Your task to perform on an android device: Open Reddit.com Image 0: 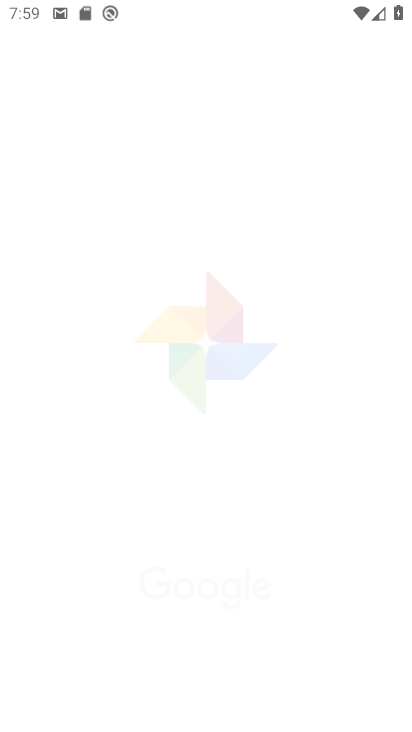
Step 0: drag from (244, 631) to (291, 269)
Your task to perform on an android device: Open Reddit.com Image 1: 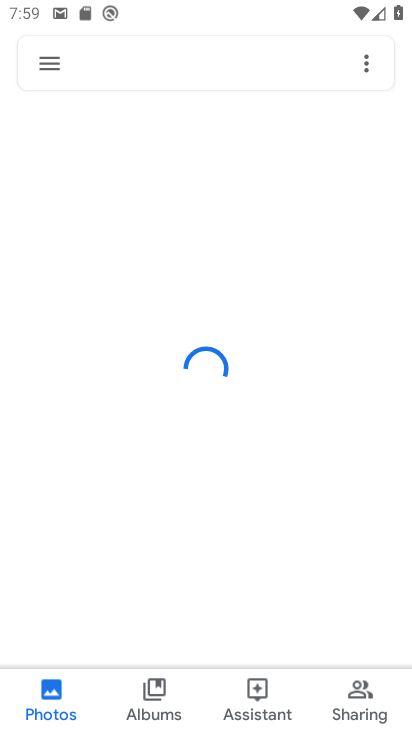
Step 1: press home button
Your task to perform on an android device: Open Reddit.com Image 2: 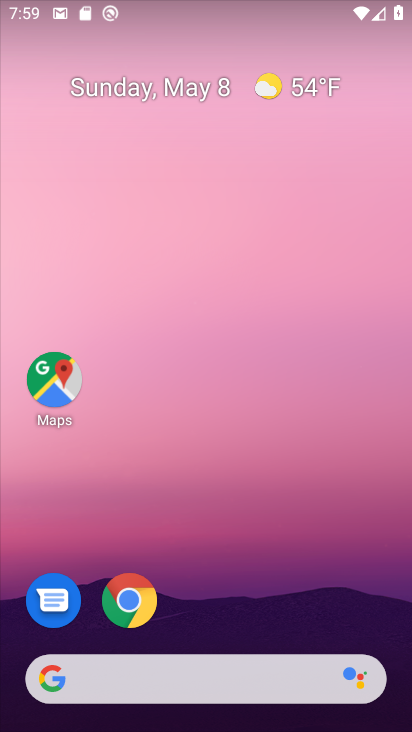
Step 2: click (128, 605)
Your task to perform on an android device: Open Reddit.com Image 3: 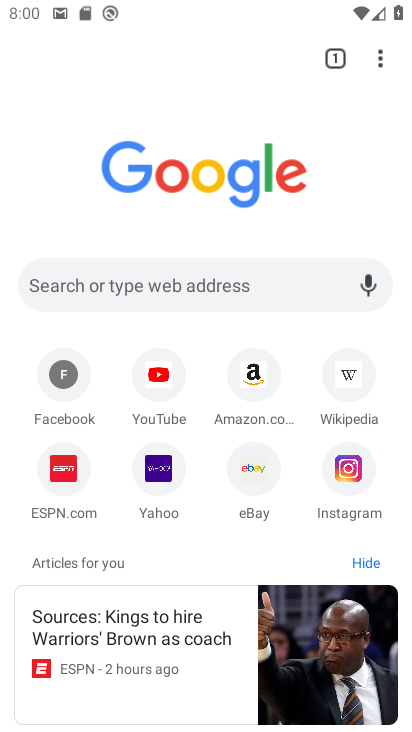
Step 3: click (222, 287)
Your task to perform on an android device: Open Reddit.com Image 4: 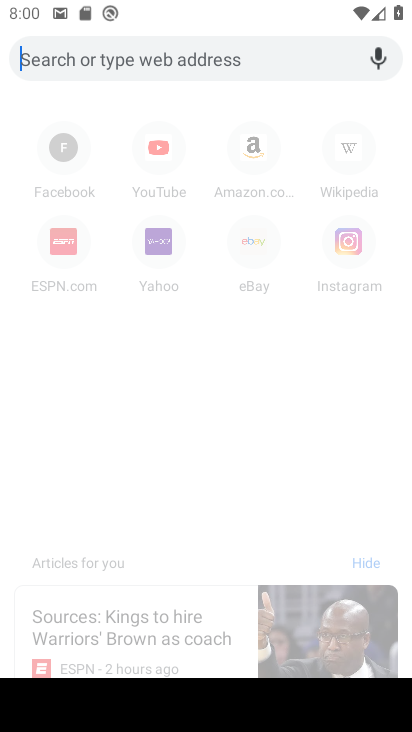
Step 4: type "reddit.com"
Your task to perform on an android device: Open Reddit.com Image 5: 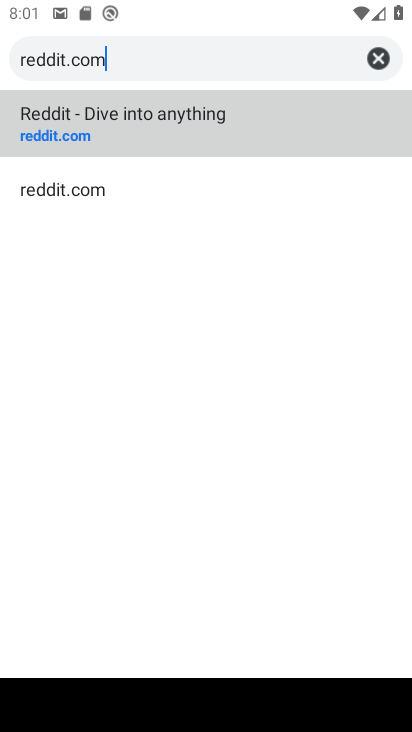
Step 5: click (306, 137)
Your task to perform on an android device: Open Reddit.com Image 6: 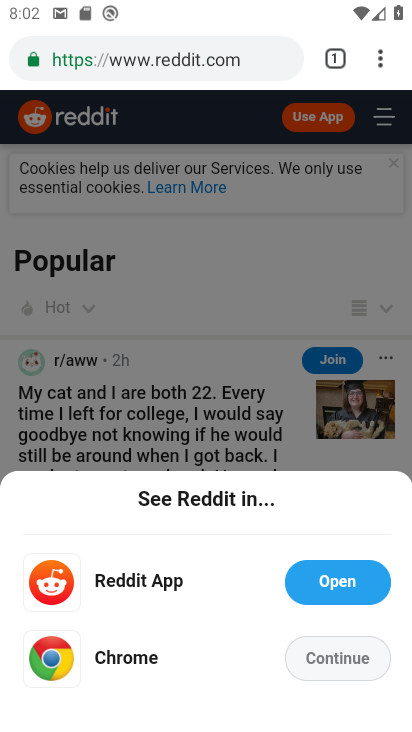
Step 6: click (318, 661)
Your task to perform on an android device: Open Reddit.com Image 7: 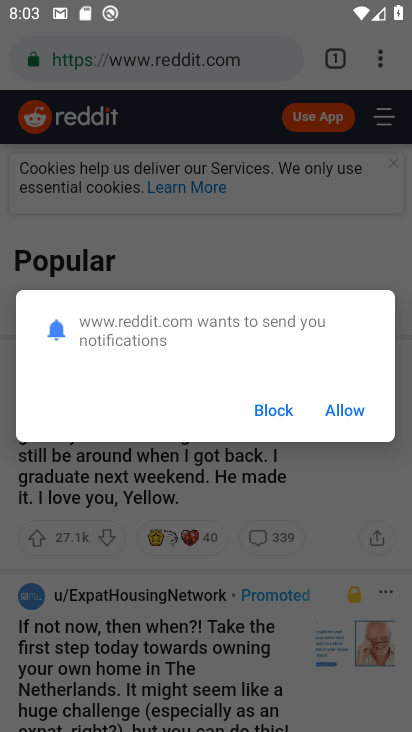
Step 7: task complete